Your task to perform on an android device: Open notification settings Image 0: 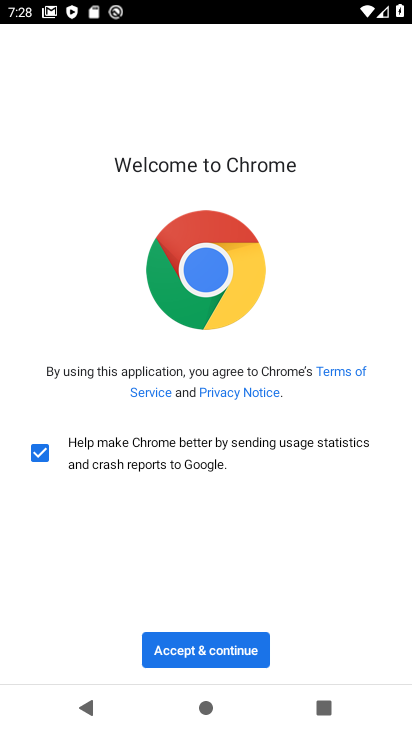
Step 0: press home button
Your task to perform on an android device: Open notification settings Image 1: 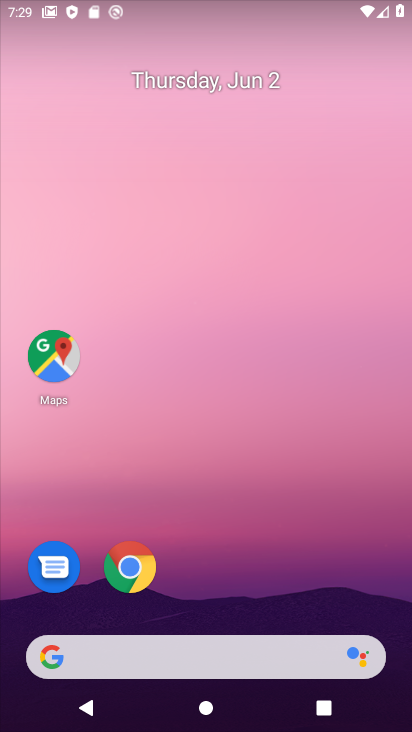
Step 1: drag from (239, 576) to (205, 37)
Your task to perform on an android device: Open notification settings Image 2: 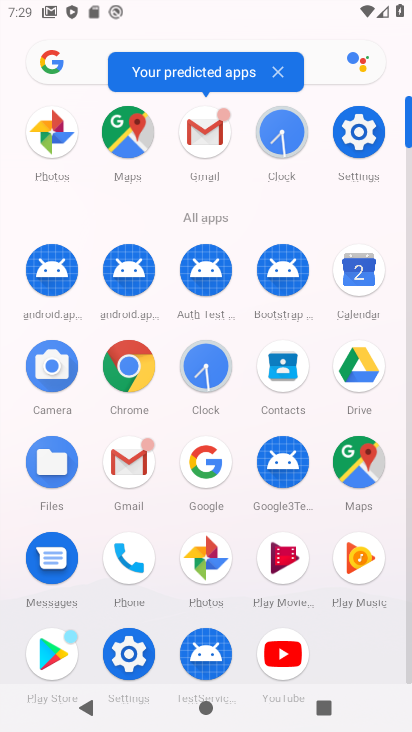
Step 2: click (358, 130)
Your task to perform on an android device: Open notification settings Image 3: 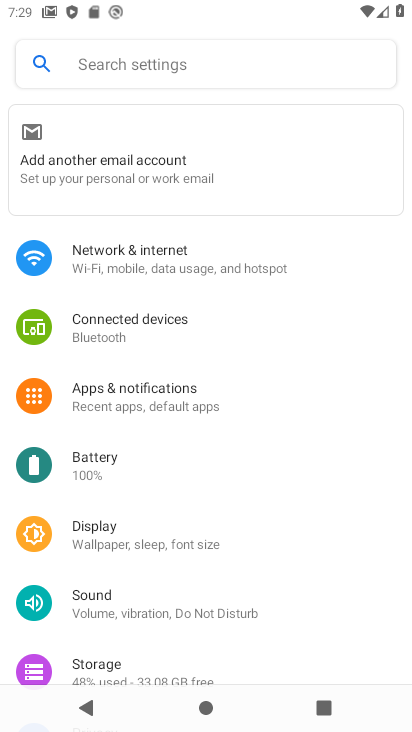
Step 3: click (136, 385)
Your task to perform on an android device: Open notification settings Image 4: 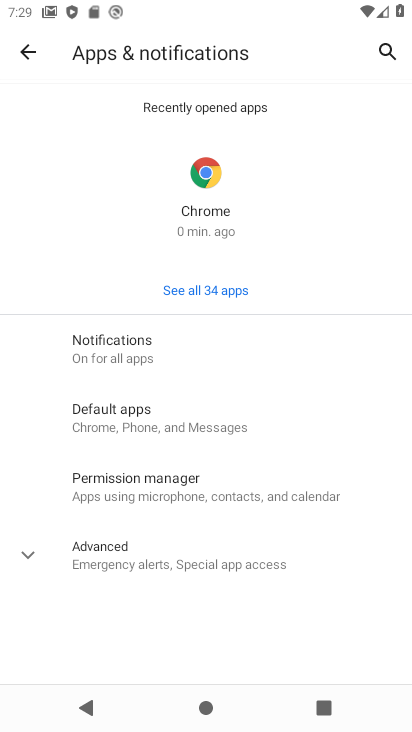
Step 4: click (128, 362)
Your task to perform on an android device: Open notification settings Image 5: 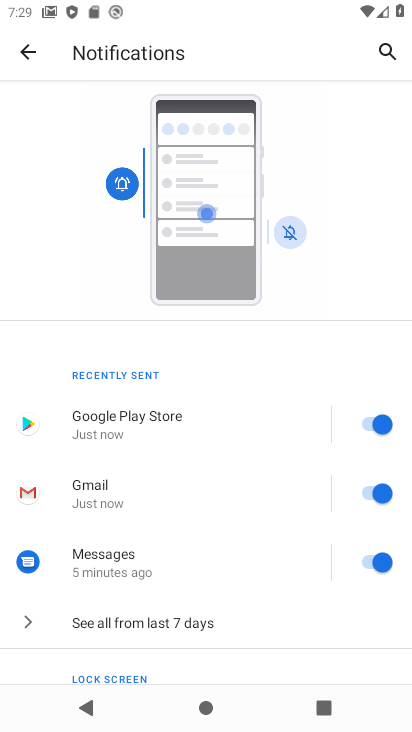
Step 5: task complete